Your task to perform on an android device: see sites visited before in the chrome app Image 0: 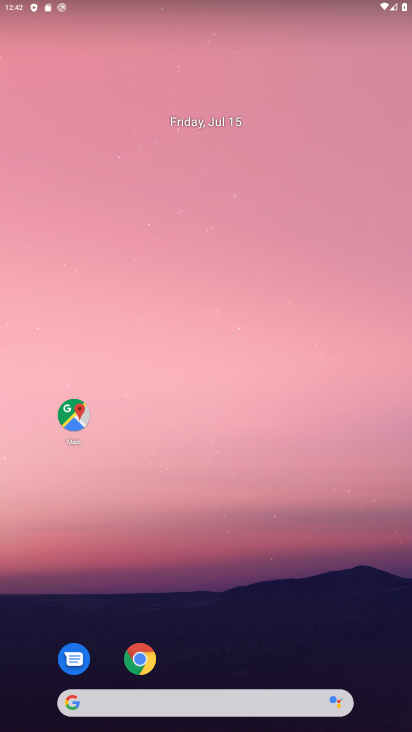
Step 0: drag from (269, 655) to (283, 168)
Your task to perform on an android device: see sites visited before in the chrome app Image 1: 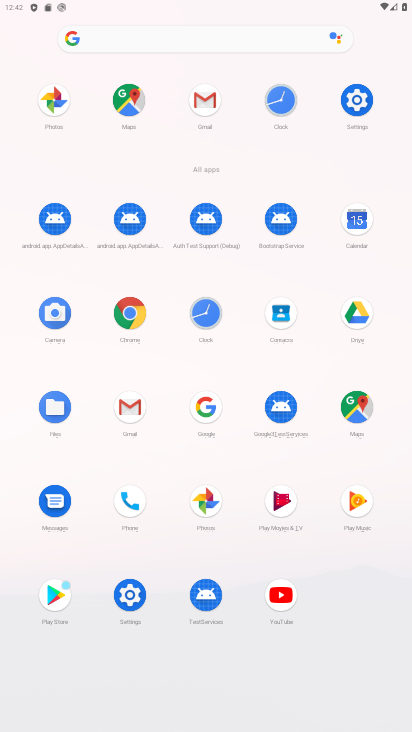
Step 1: click (129, 316)
Your task to perform on an android device: see sites visited before in the chrome app Image 2: 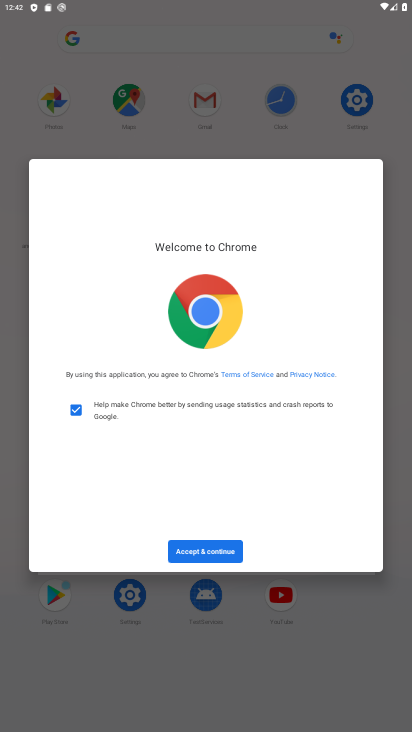
Step 2: click (204, 552)
Your task to perform on an android device: see sites visited before in the chrome app Image 3: 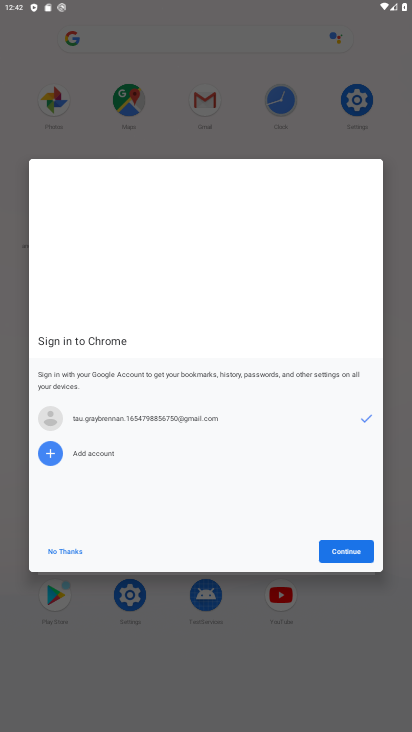
Step 3: click (367, 550)
Your task to perform on an android device: see sites visited before in the chrome app Image 4: 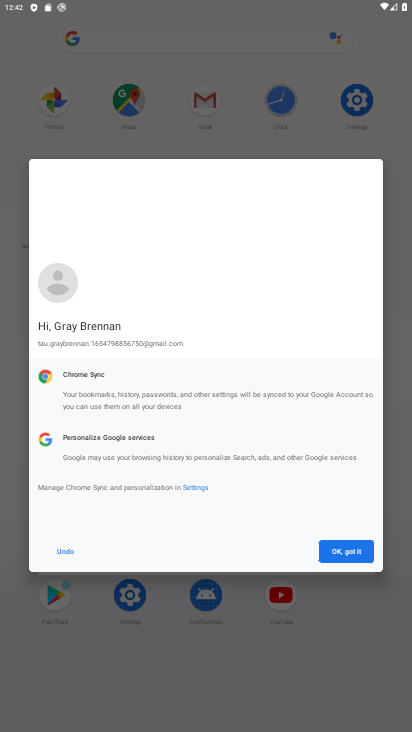
Step 4: click (367, 550)
Your task to perform on an android device: see sites visited before in the chrome app Image 5: 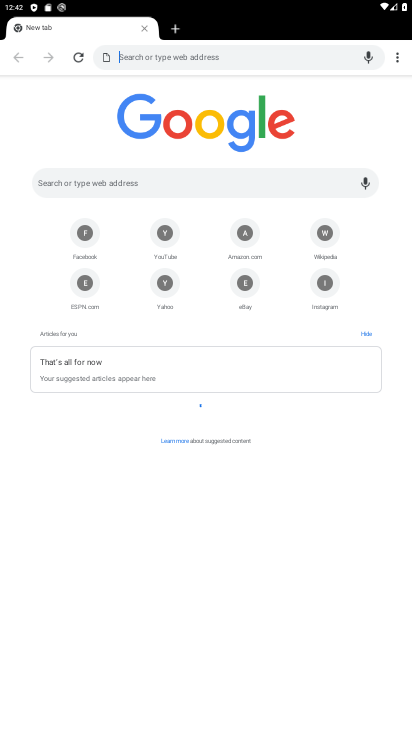
Step 5: click (394, 59)
Your task to perform on an android device: see sites visited before in the chrome app Image 6: 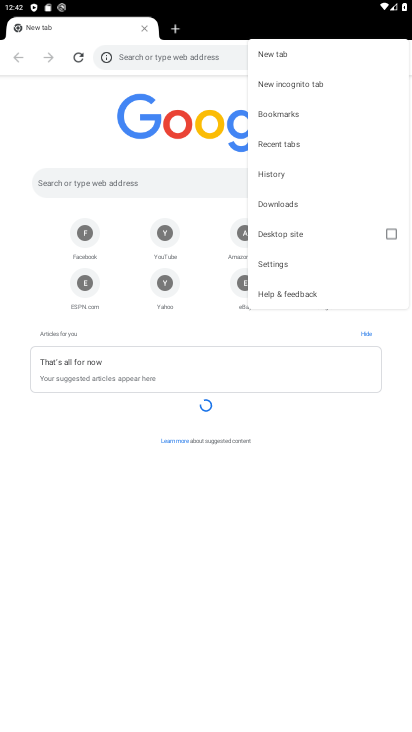
Step 6: click (277, 173)
Your task to perform on an android device: see sites visited before in the chrome app Image 7: 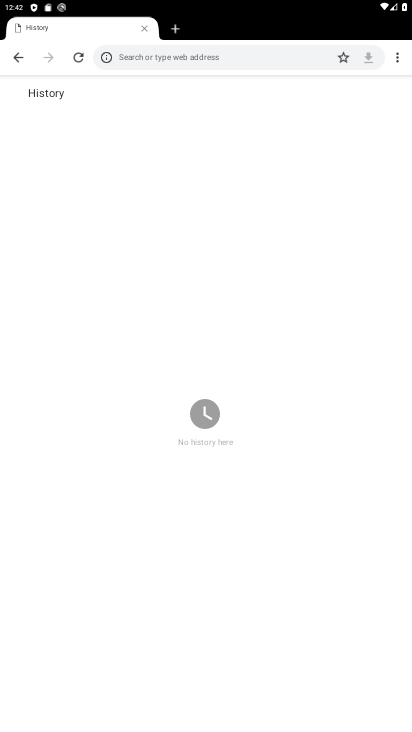
Step 7: task complete